Your task to perform on an android device: open app "Google Chrome" (install if not already installed) Image 0: 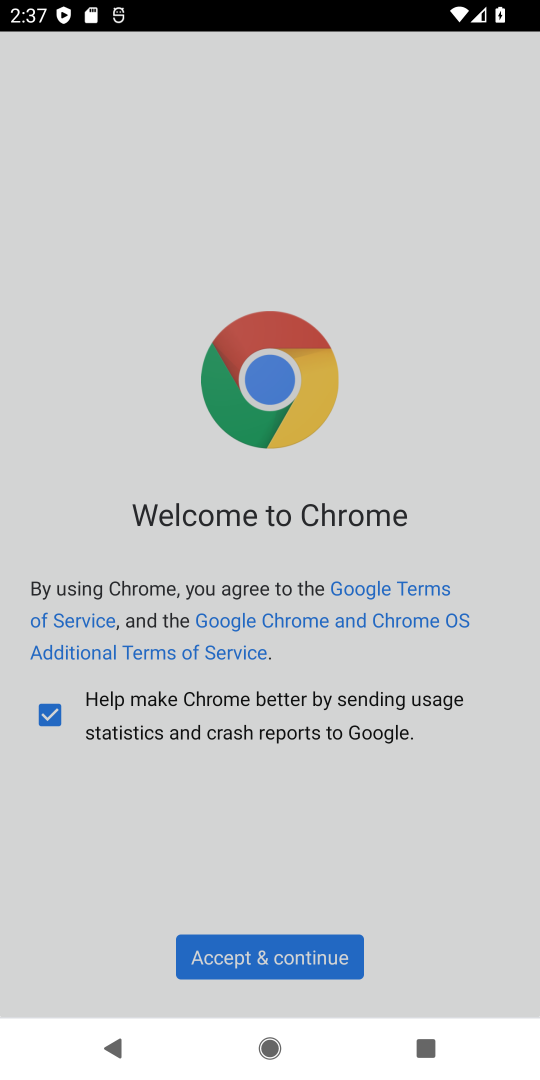
Step 0: press home button
Your task to perform on an android device: open app "Google Chrome" (install if not already installed) Image 1: 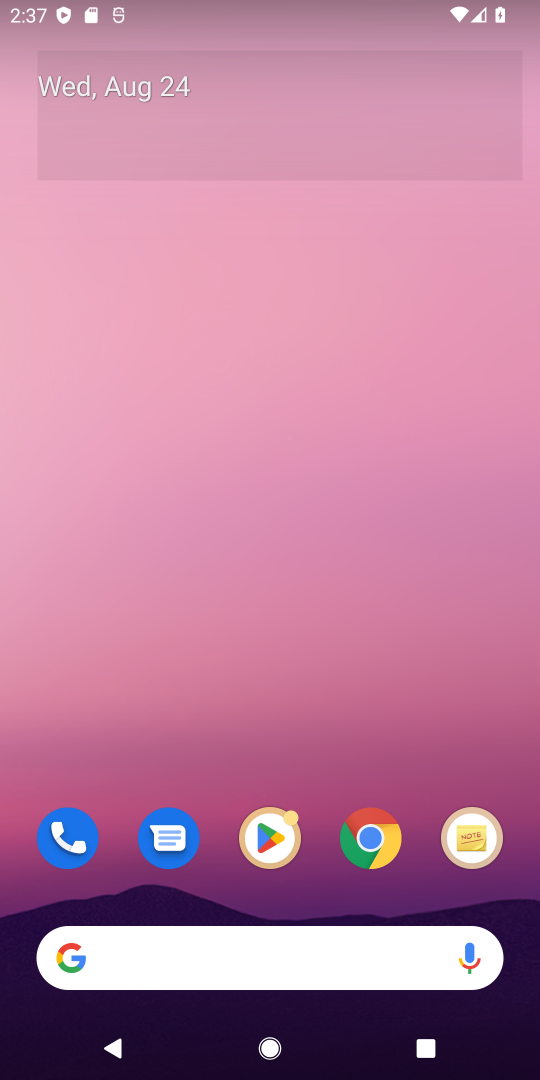
Step 1: drag from (483, 748) to (480, 82)
Your task to perform on an android device: open app "Google Chrome" (install if not already installed) Image 2: 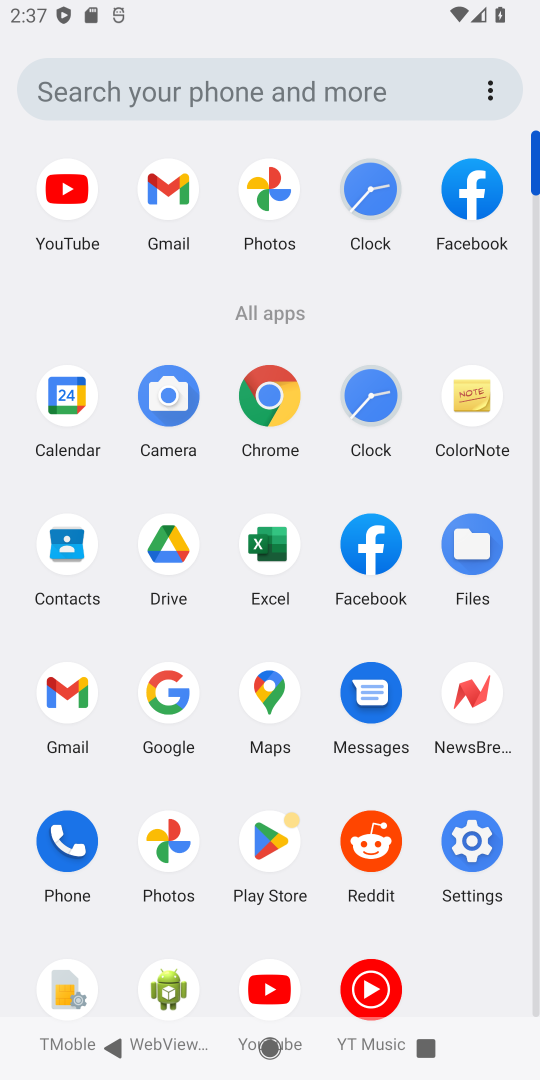
Step 2: click (268, 836)
Your task to perform on an android device: open app "Google Chrome" (install if not already installed) Image 3: 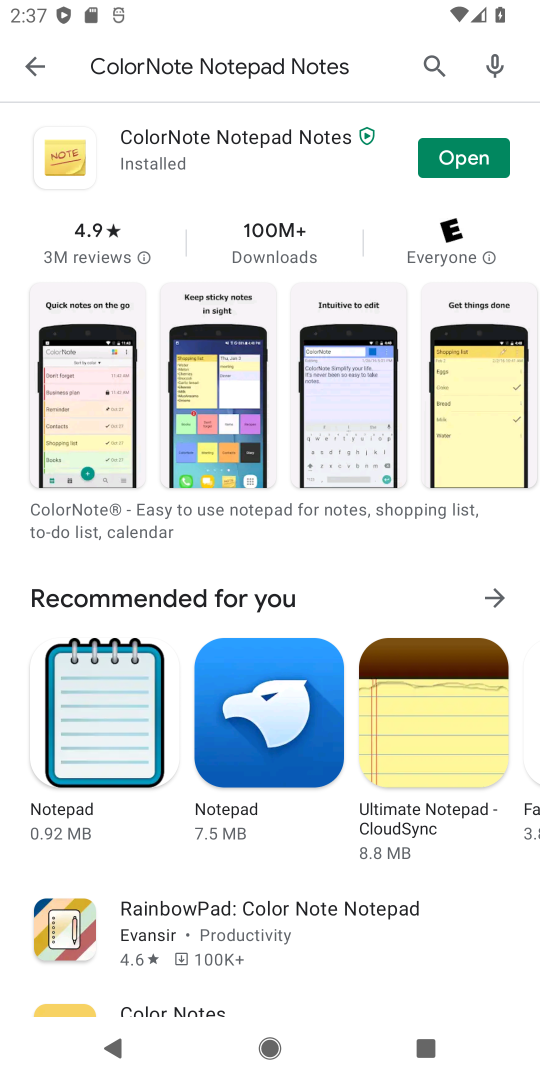
Step 3: press back button
Your task to perform on an android device: open app "Google Chrome" (install if not already installed) Image 4: 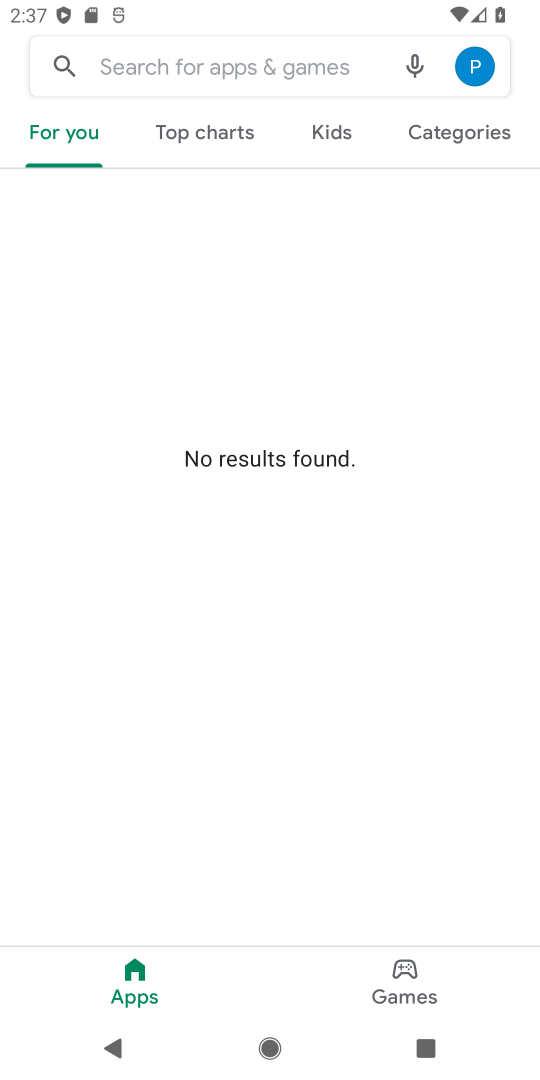
Step 4: click (277, 69)
Your task to perform on an android device: open app "Google Chrome" (install if not already installed) Image 5: 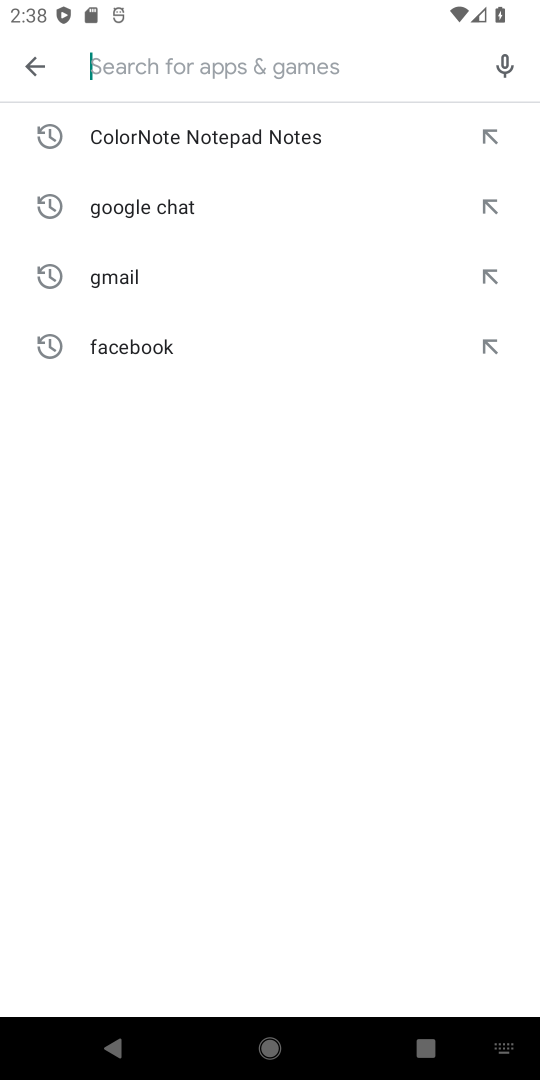
Step 5: press enter
Your task to perform on an android device: open app "Google Chrome" (install if not already installed) Image 6: 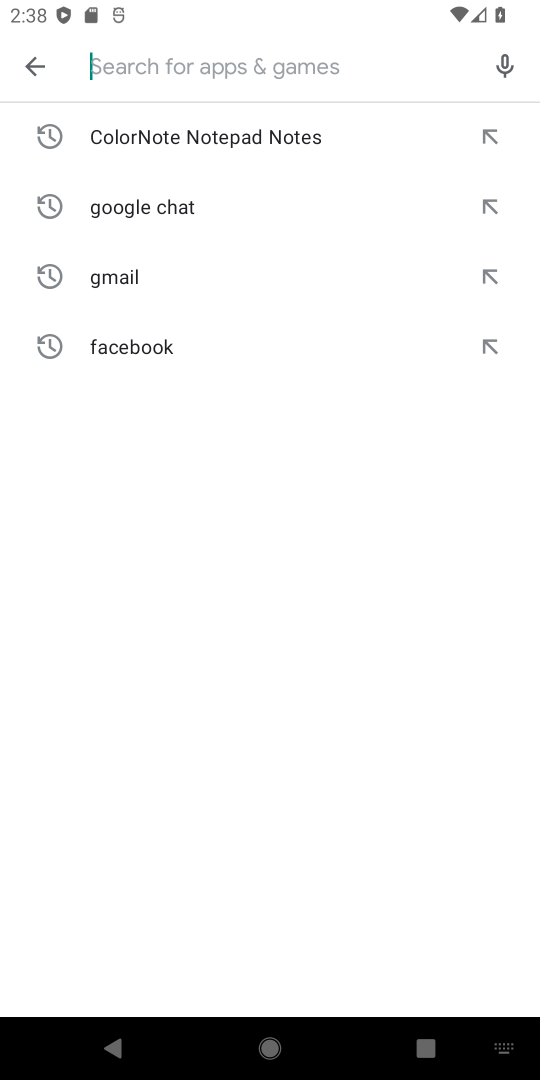
Step 6: type "google chrome"
Your task to perform on an android device: open app "Google Chrome" (install if not already installed) Image 7: 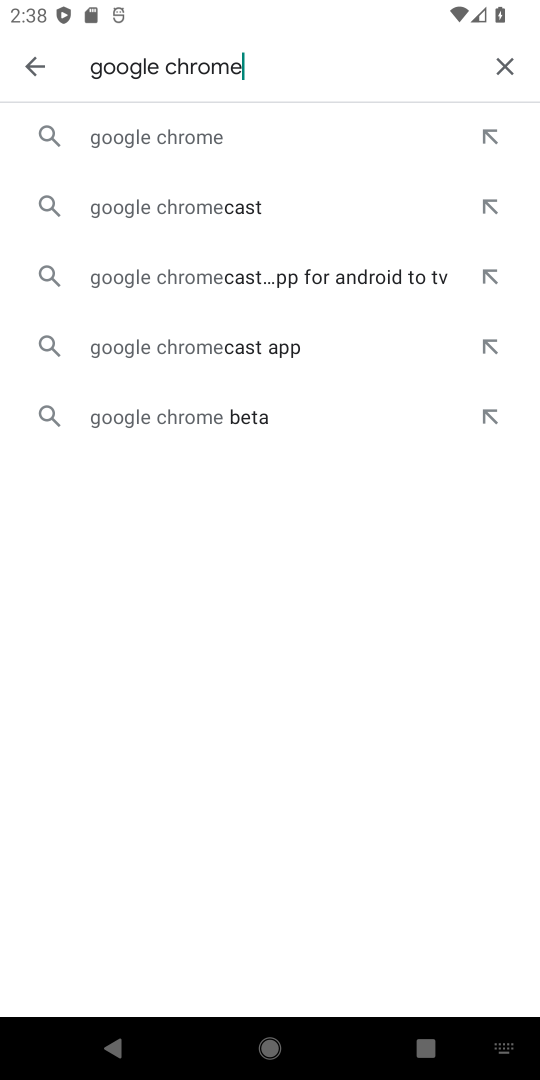
Step 7: click (222, 137)
Your task to perform on an android device: open app "Google Chrome" (install if not already installed) Image 8: 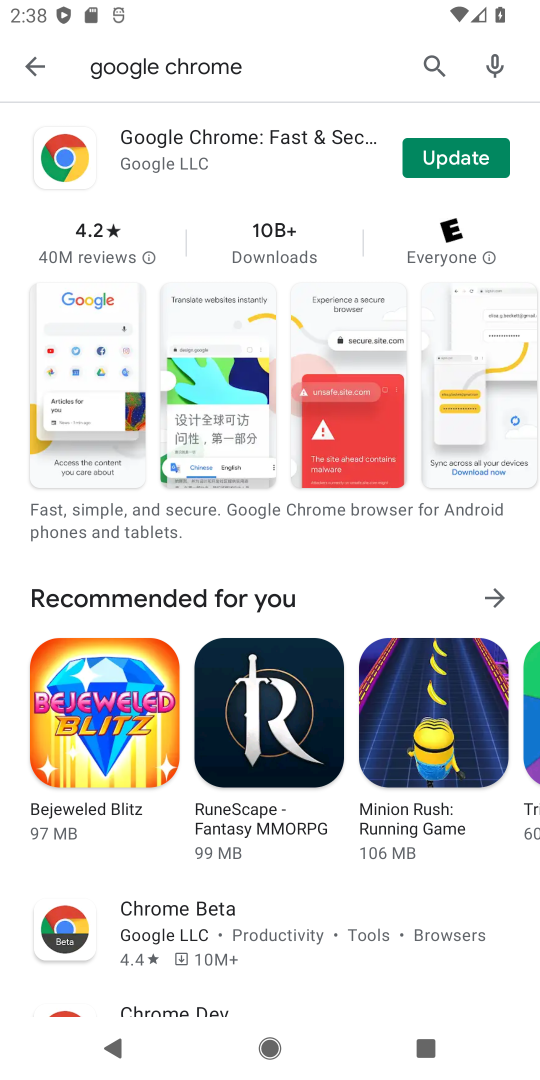
Step 8: click (460, 162)
Your task to perform on an android device: open app "Google Chrome" (install if not already installed) Image 9: 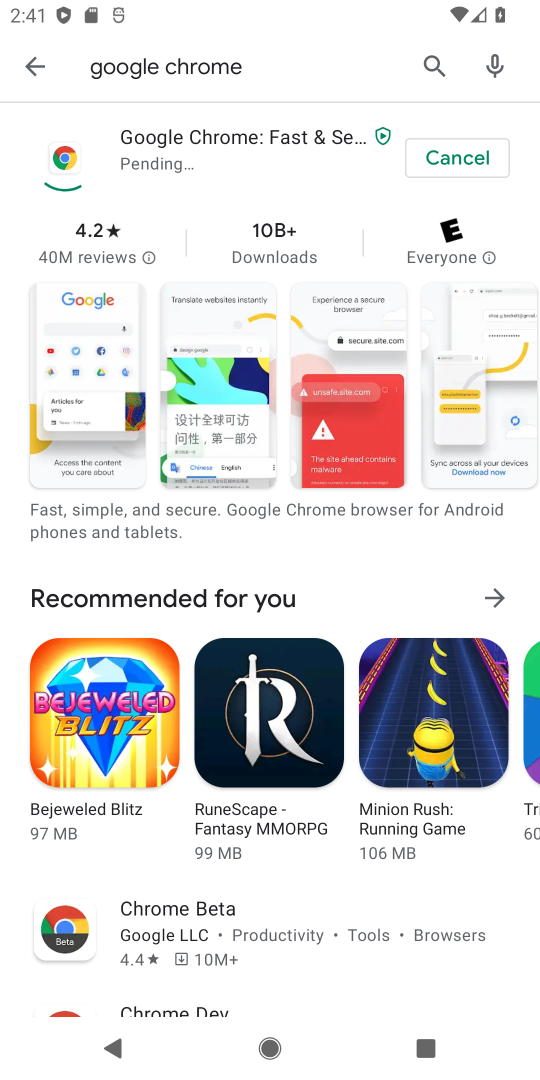
Step 9: task complete